Your task to perform on an android device: Go to battery settings Image 0: 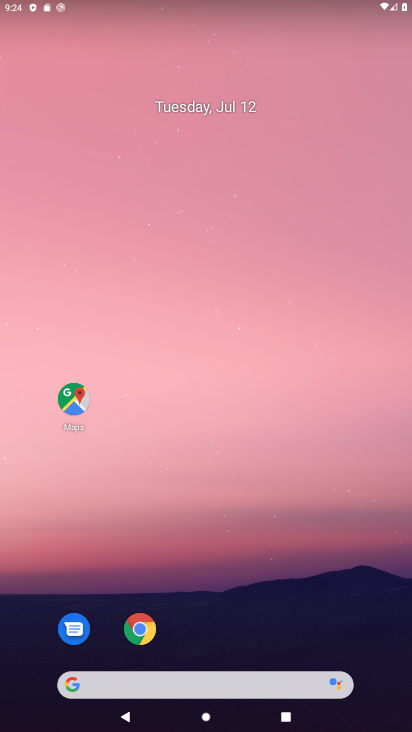
Step 0: drag from (280, 621) to (333, 3)
Your task to perform on an android device: Go to battery settings Image 1: 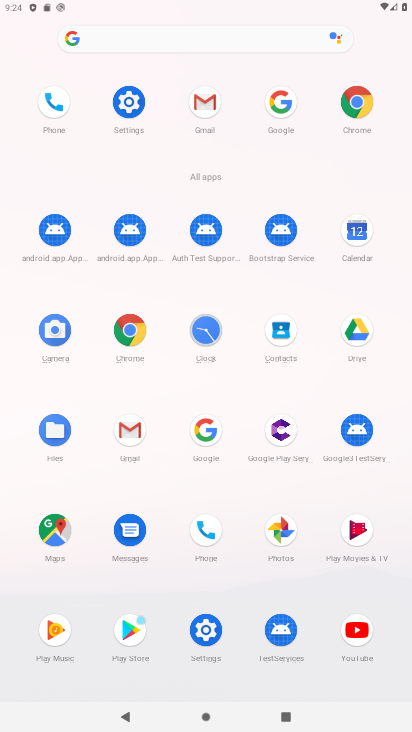
Step 1: click (126, 97)
Your task to perform on an android device: Go to battery settings Image 2: 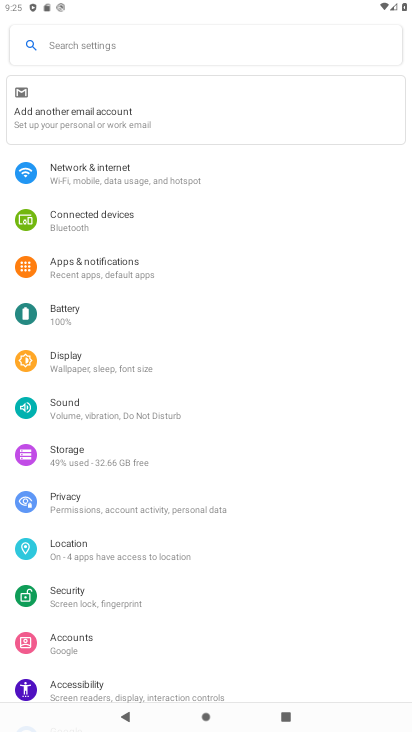
Step 2: click (82, 317)
Your task to perform on an android device: Go to battery settings Image 3: 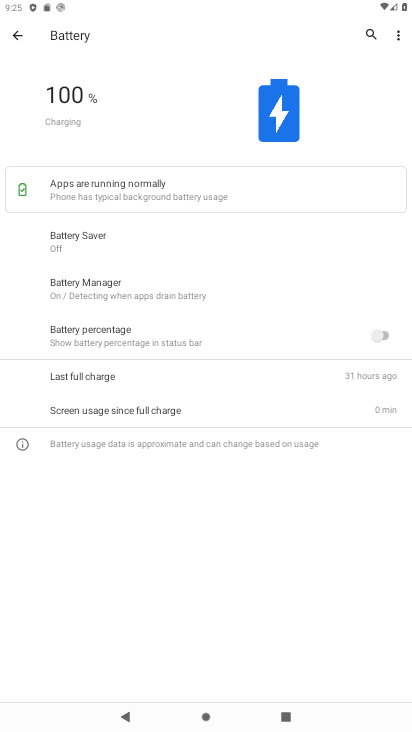
Step 3: task complete